Your task to perform on an android device: Search for seafood restaurants on Google Maps Image 0: 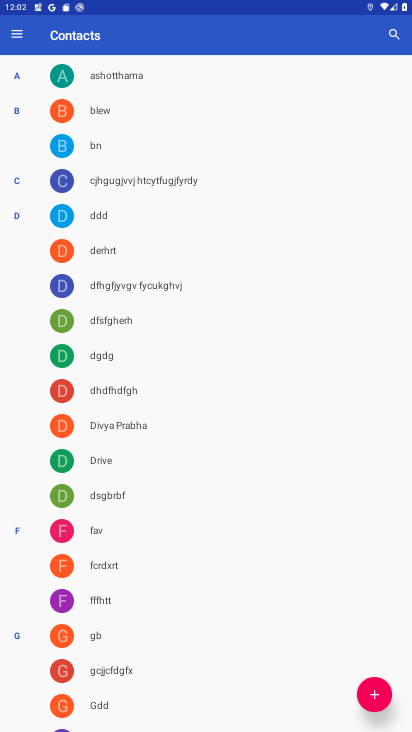
Step 0: press home button
Your task to perform on an android device: Search for seafood restaurants on Google Maps Image 1: 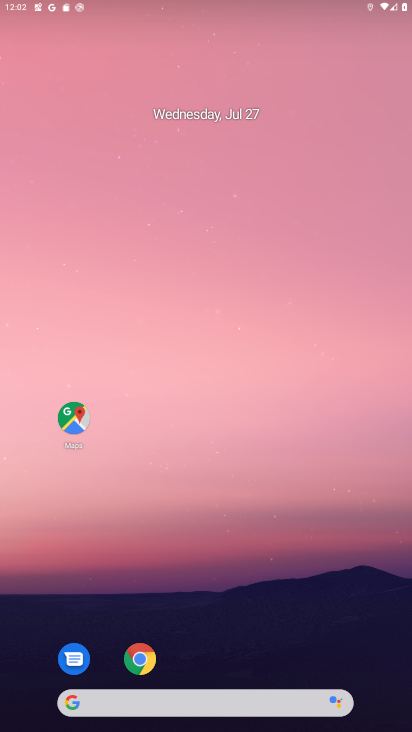
Step 1: drag from (272, 662) to (326, 3)
Your task to perform on an android device: Search for seafood restaurants on Google Maps Image 2: 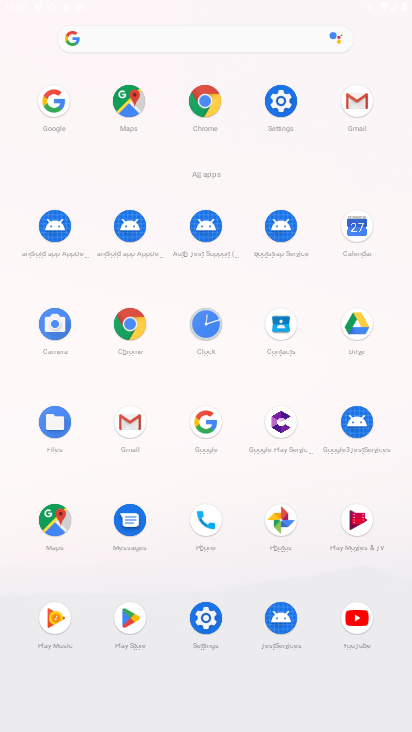
Step 2: click (53, 531)
Your task to perform on an android device: Search for seafood restaurants on Google Maps Image 3: 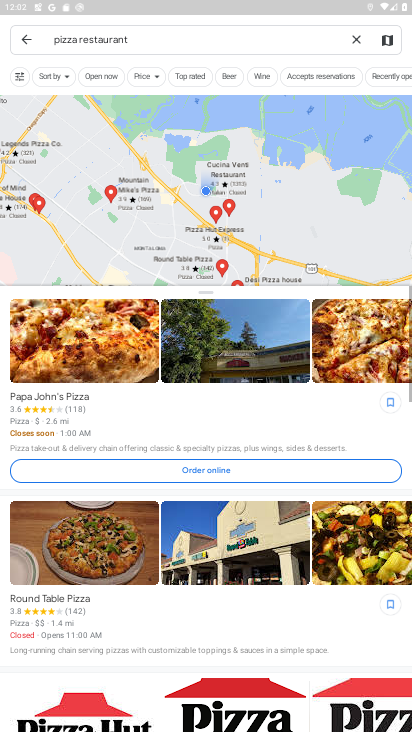
Step 3: press back button
Your task to perform on an android device: Search for seafood restaurants on Google Maps Image 4: 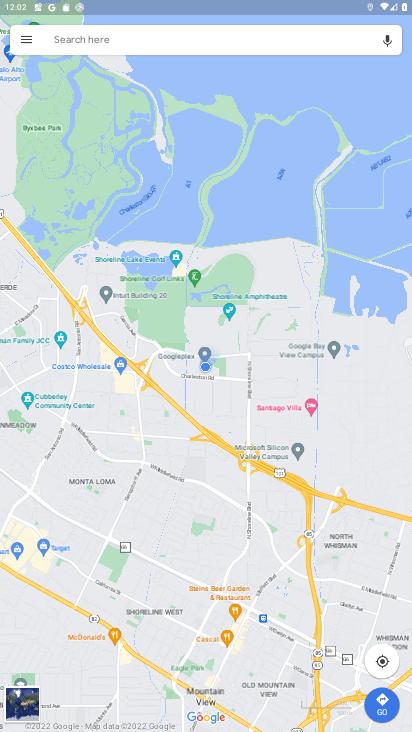
Step 4: click (274, 30)
Your task to perform on an android device: Search for seafood restaurants on Google Maps Image 5: 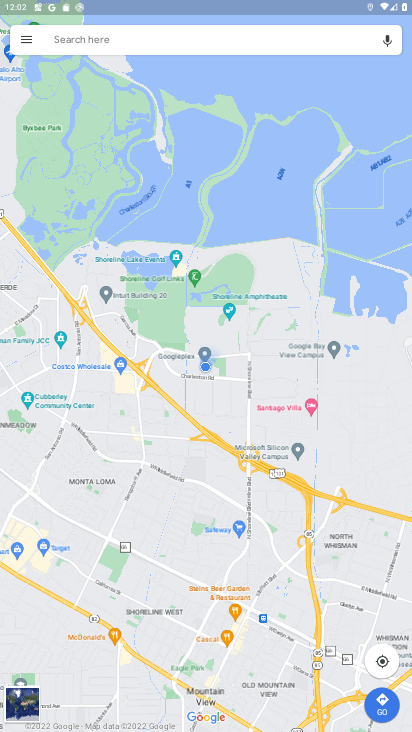
Step 5: click (274, 30)
Your task to perform on an android device: Search for seafood restaurants on Google Maps Image 6: 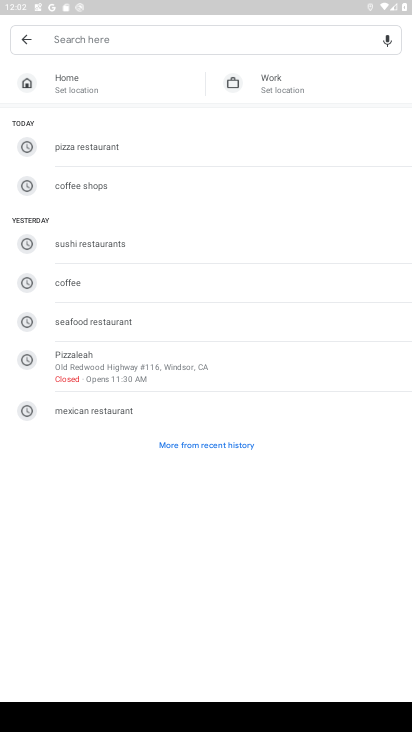
Step 6: click (190, 321)
Your task to perform on an android device: Search for seafood restaurants on Google Maps Image 7: 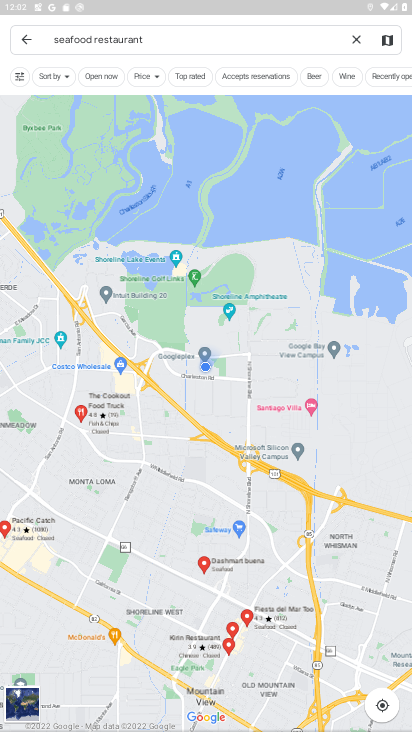
Step 7: task complete